Your task to perform on an android device: toggle data saver in the chrome app Image 0: 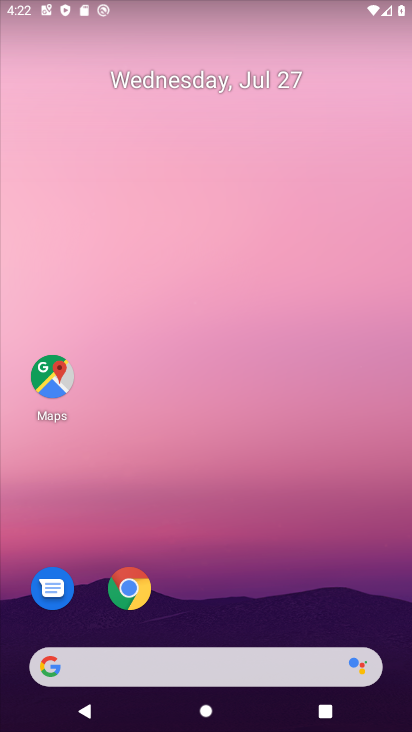
Step 0: click (129, 590)
Your task to perform on an android device: toggle data saver in the chrome app Image 1: 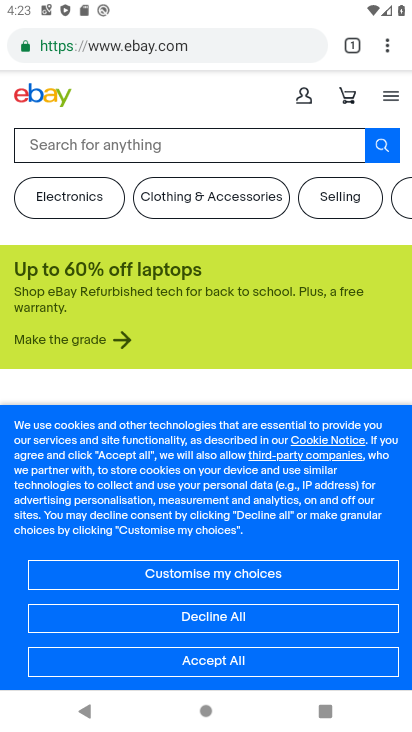
Step 1: click (386, 52)
Your task to perform on an android device: toggle data saver in the chrome app Image 2: 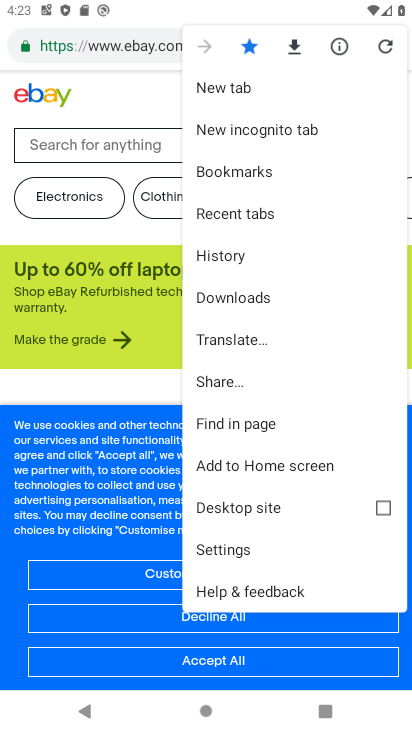
Step 2: click (224, 549)
Your task to perform on an android device: toggle data saver in the chrome app Image 3: 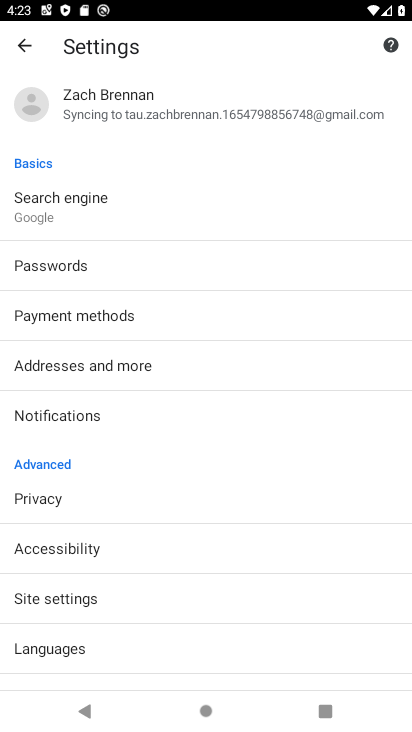
Step 3: drag from (61, 631) to (61, 324)
Your task to perform on an android device: toggle data saver in the chrome app Image 4: 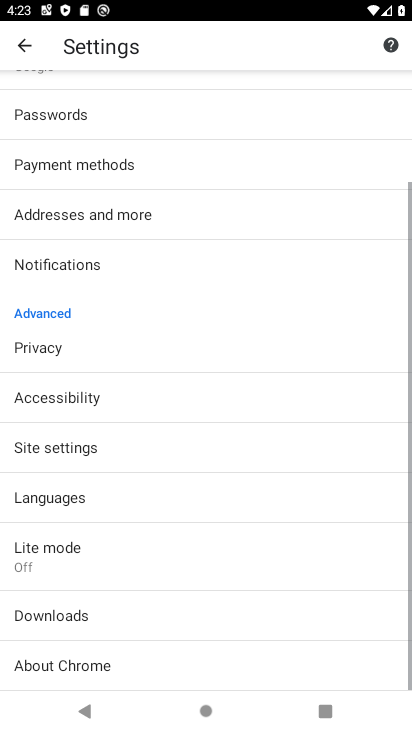
Step 4: click (55, 541)
Your task to perform on an android device: toggle data saver in the chrome app Image 5: 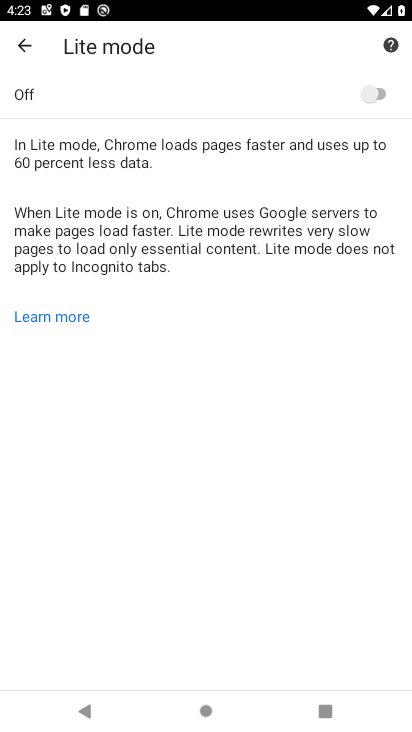
Step 5: click (374, 94)
Your task to perform on an android device: toggle data saver in the chrome app Image 6: 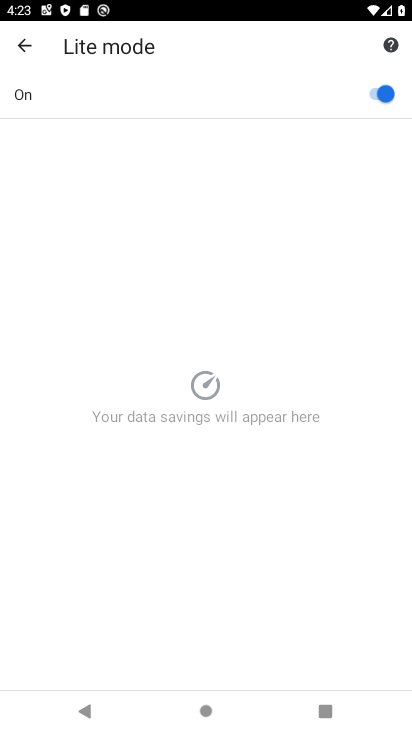
Step 6: task complete